Your task to perform on an android device: open app "Spotify" (install if not already installed) Image 0: 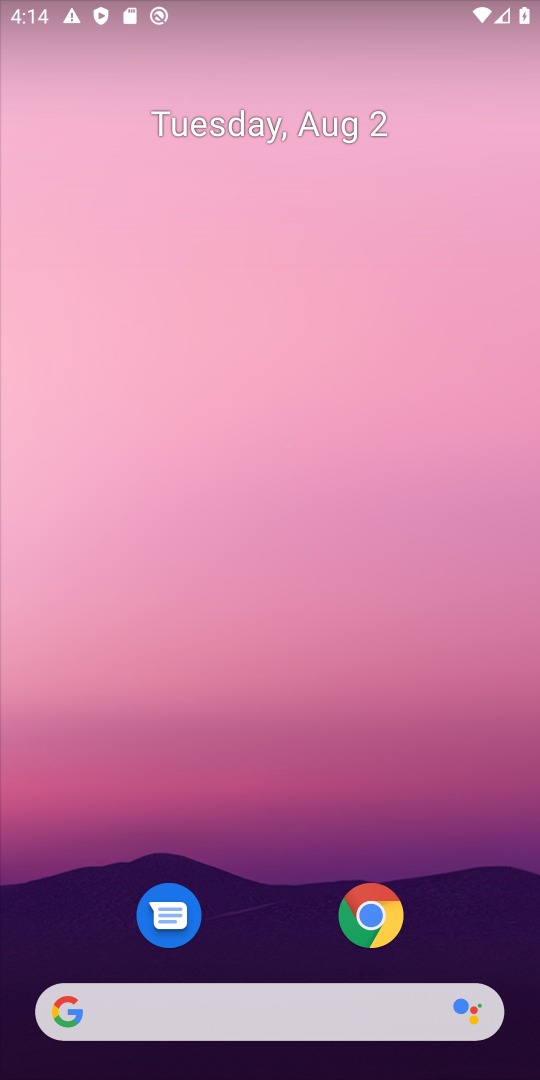
Step 0: drag from (269, 917) to (281, 313)
Your task to perform on an android device: open app "Spotify" (install if not already installed) Image 1: 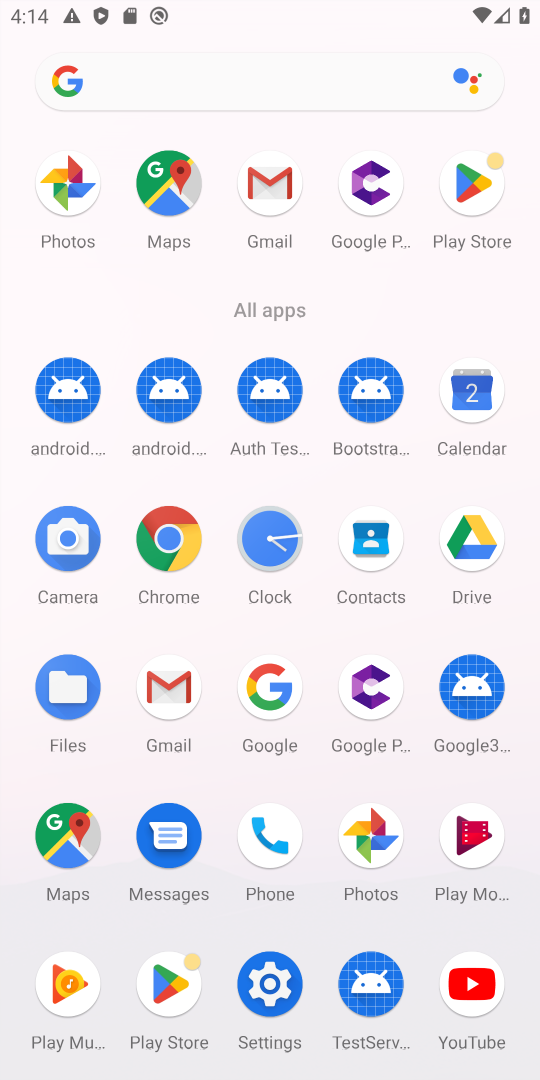
Step 1: click (462, 197)
Your task to perform on an android device: open app "Spotify" (install if not already installed) Image 2: 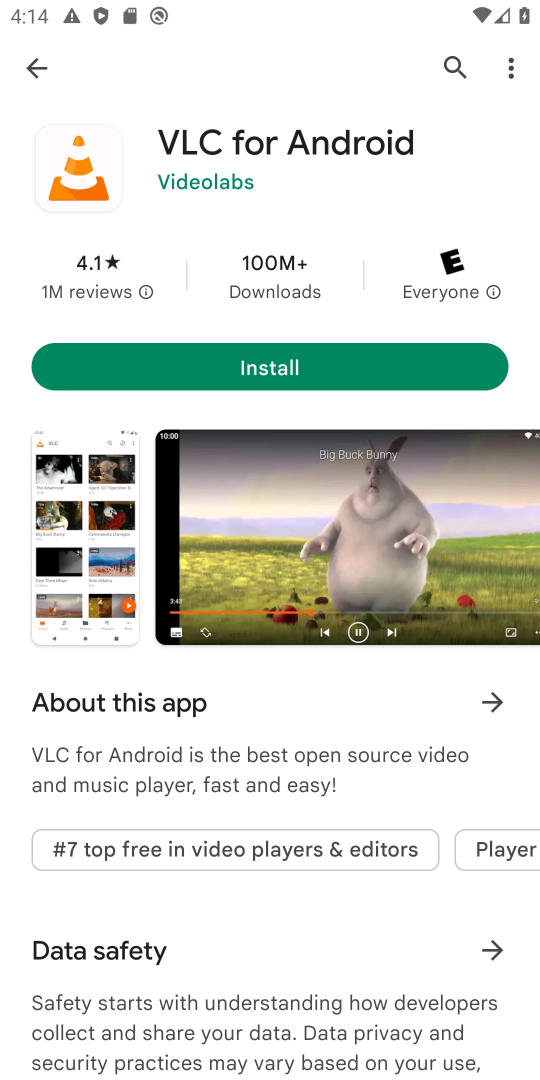
Step 2: click (451, 75)
Your task to perform on an android device: open app "Spotify" (install if not already installed) Image 3: 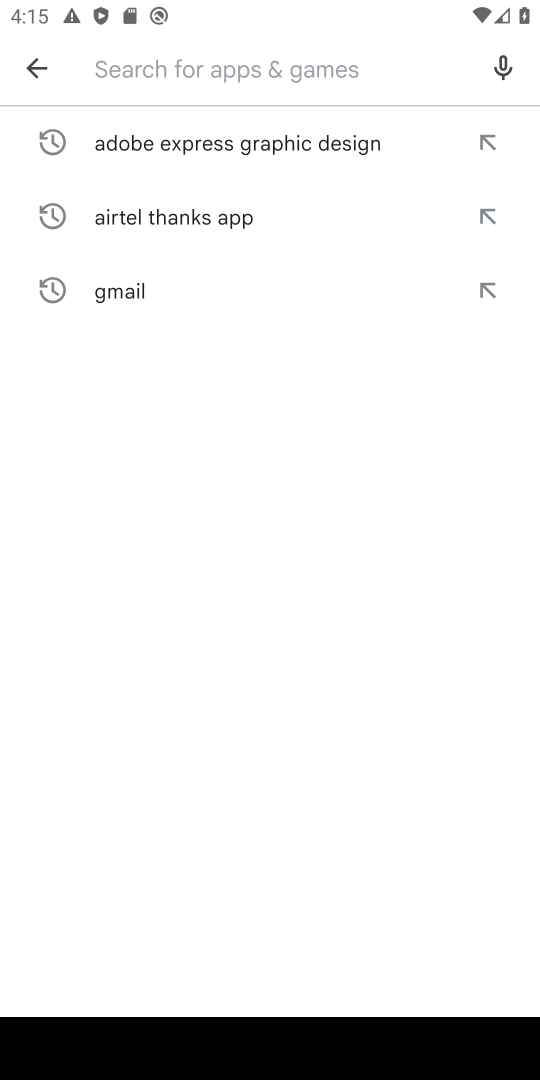
Step 3: type "spotify "
Your task to perform on an android device: open app "Spotify" (install if not already installed) Image 4: 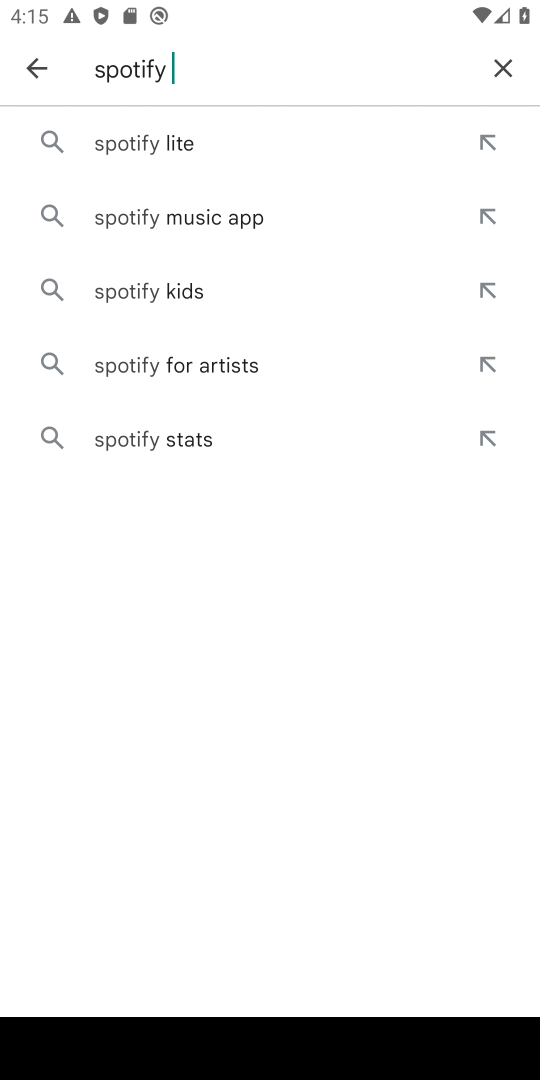
Step 4: click (127, 203)
Your task to perform on an android device: open app "Spotify" (install if not already installed) Image 5: 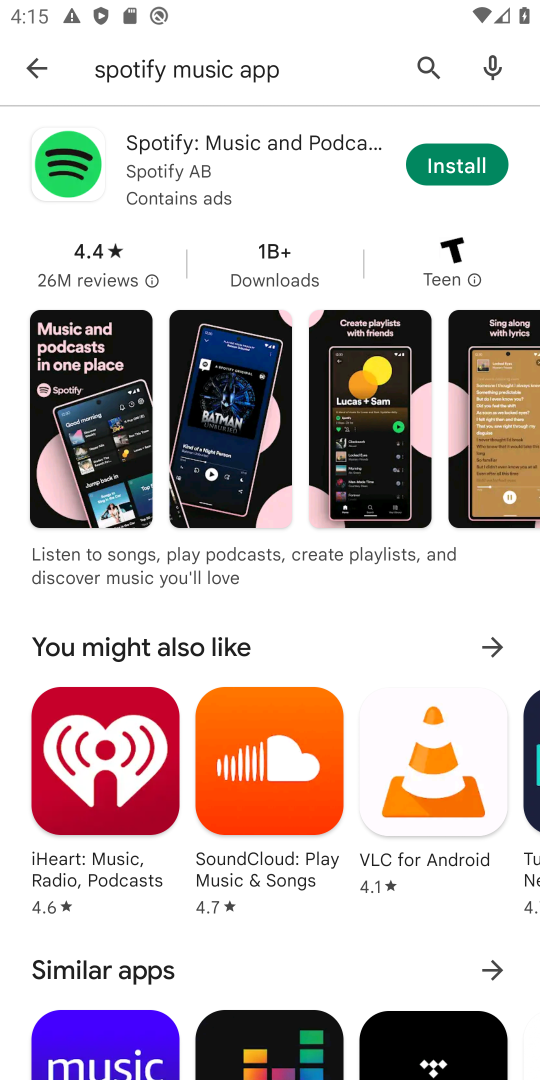
Step 5: click (229, 143)
Your task to perform on an android device: open app "Spotify" (install if not already installed) Image 6: 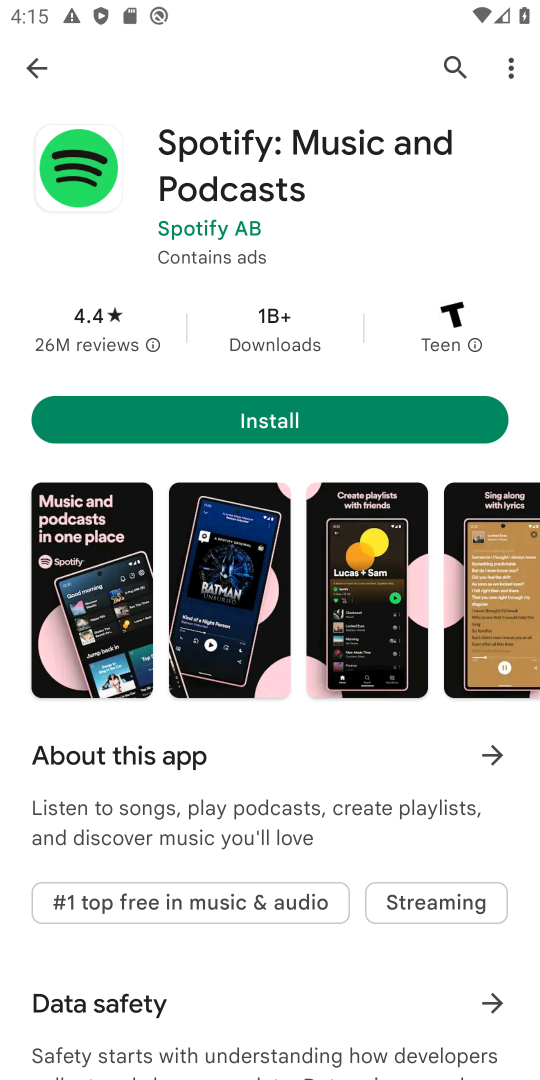
Step 6: click (194, 406)
Your task to perform on an android device: open app "Spotify" (install if not already installed) Image 7: 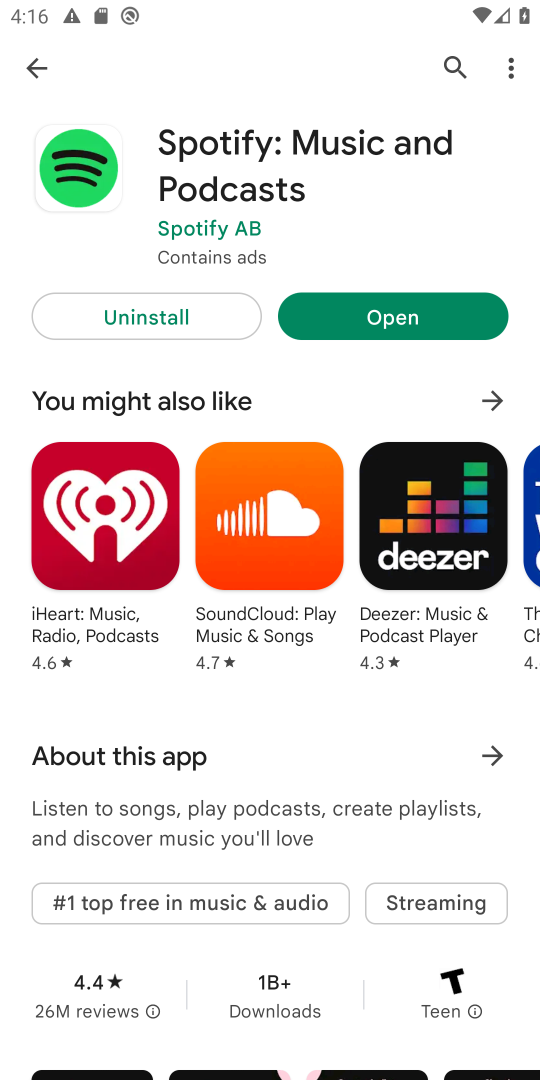
Step 7: click (410, 322)
Your task to perform on an android device: open app "Spotify" (install if not already installed) Image 8: 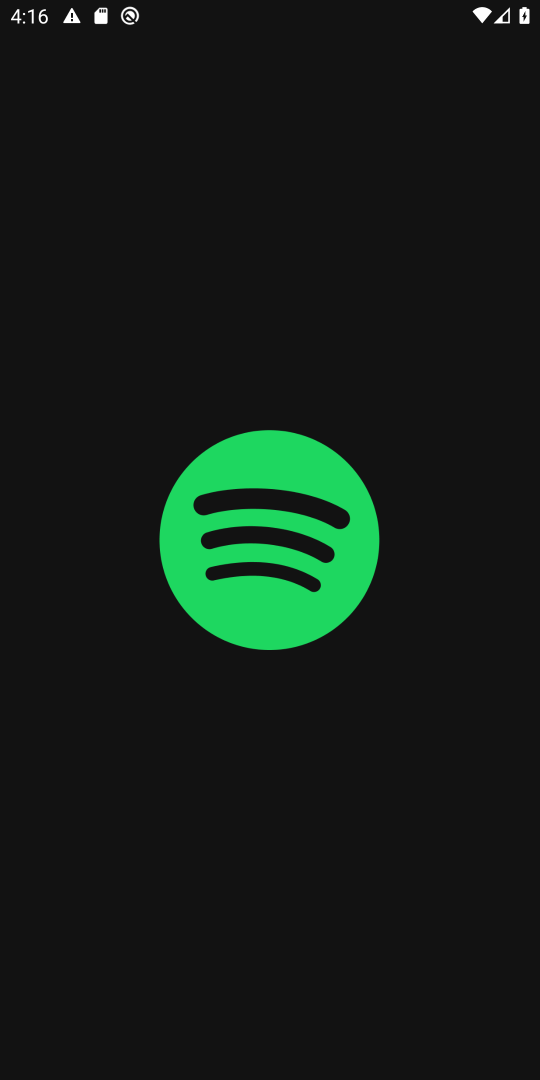
Step 8: task complete